Your task to perform on an android device: Open Google Maps Image 0: 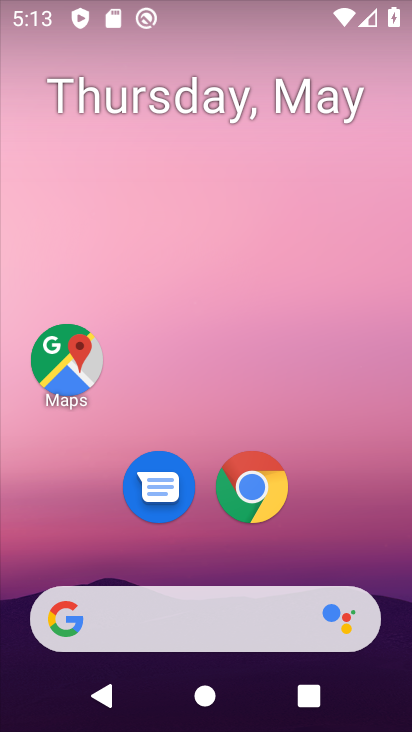
Step 0: click (66, 358)
Your task to perform on an android device: Open Google Maps Image 1: 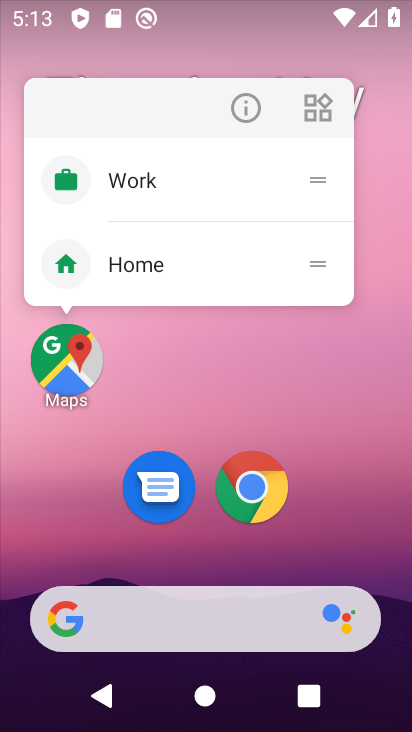
Step 1: click (66, 358)
Your task to perform on an android device: Open Google Maps Image 2: 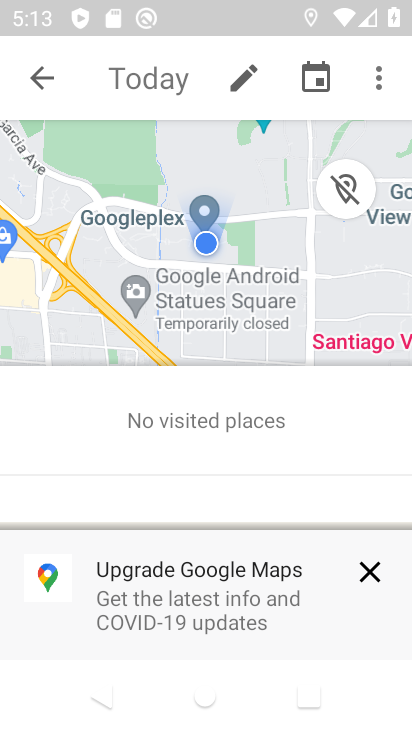
Step 2: click (38, 72)
Your task to perform on an android device: Open Google Maps Image 3: 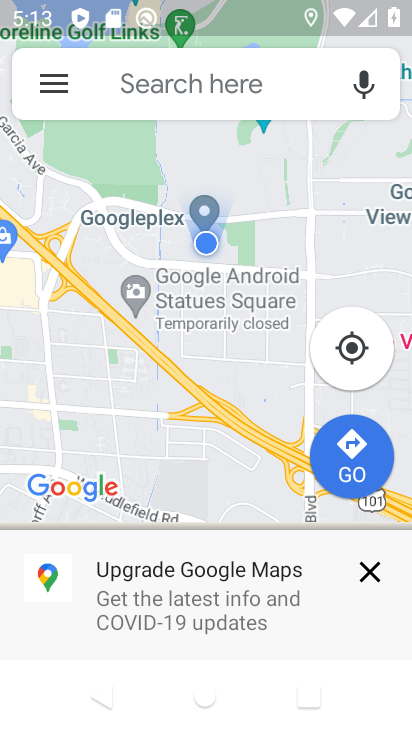
Step 3: task complete